Your task to perform on an android device: Show me popular games on the Play Store Image 0: 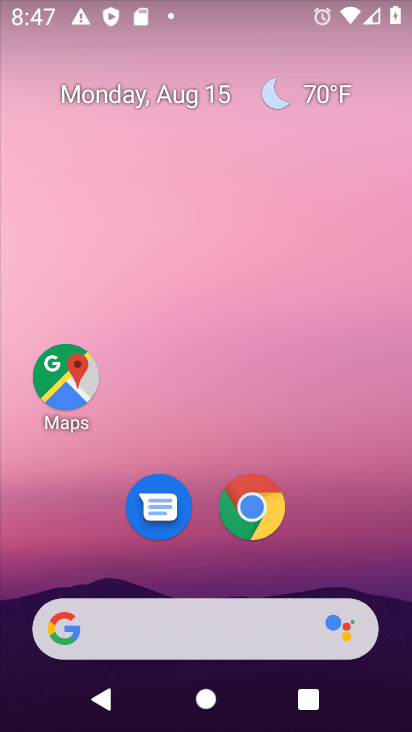
Step 0: drag from (238, 491) to (247, 4)
Your task to perform on an android device: Show me popular games on the Play Store Image 1: 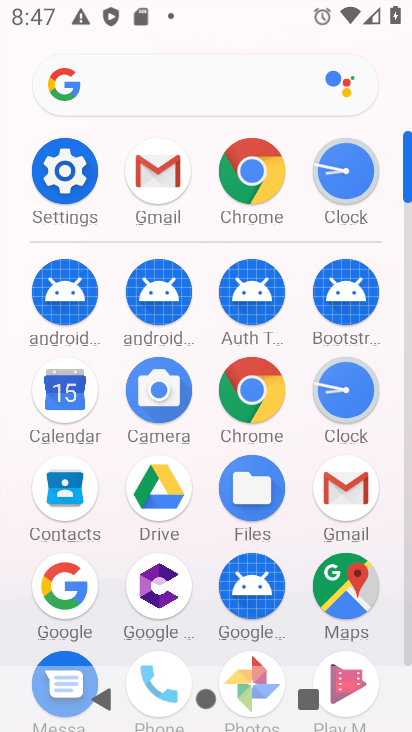
Step 1: drag from (224, 650) to (210, 135)
Your task to perform on an android device: Show me popular games on the Play Store Image 2: 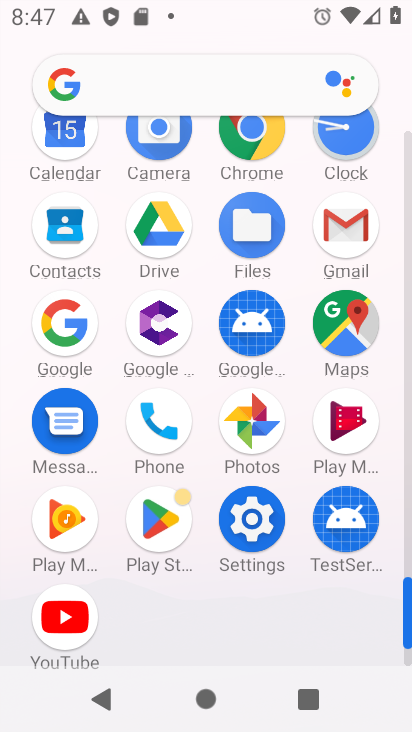
Step 2: click (155, 521)
Your task to perform on an android device: Show me popular games on the Play Store Image 3: 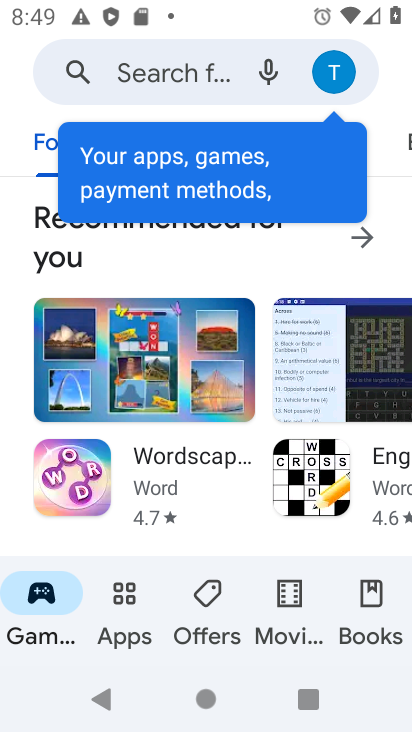
Step 3: click (182, 82)
Your task to perform on an android device: Show me popular games on the Play Store Image 4: 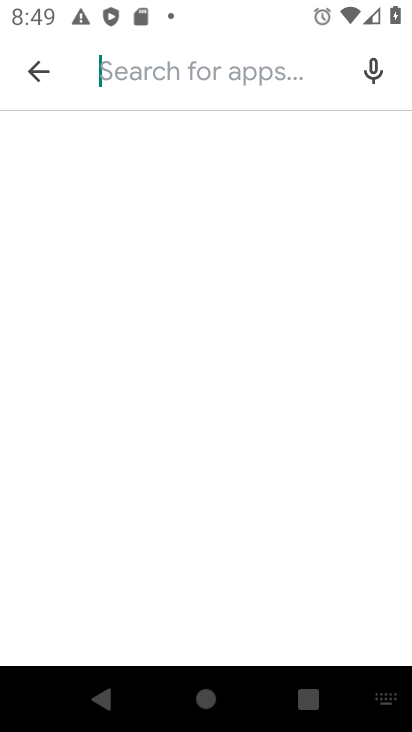
Step 4: type "popular games"
Your task to perform on an android device: Show me popular games on the Play Store Image 5: 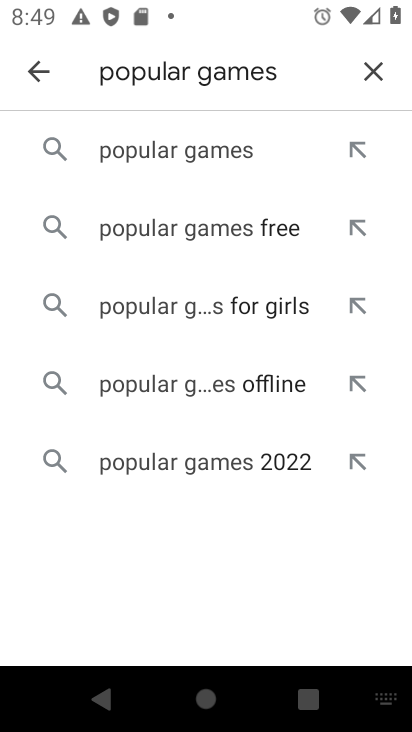
Step 5: click (213, 157)
Your task to perform on an android device: Show me popular games on the Play Store Image 6: 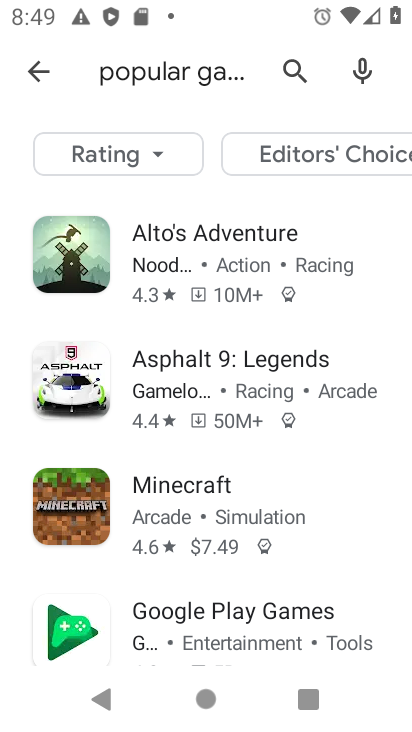
Step 6: task complete